Your task to perform on an android device: change the clock style Image 0: 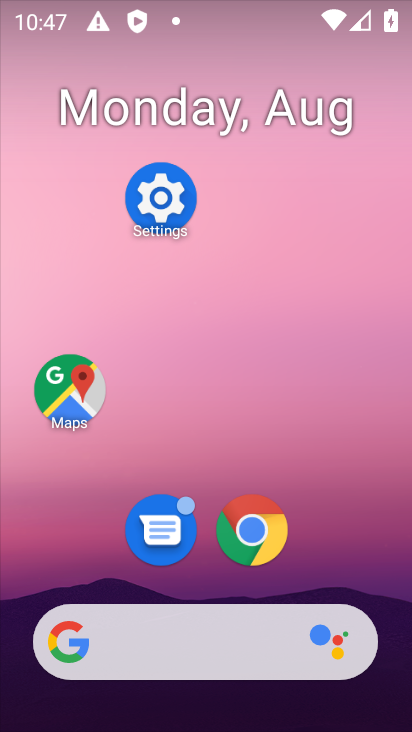
Step 0: drag from (213, 646) to (213, 444)
Your task to perform on an android device: change the clock style Image 1: 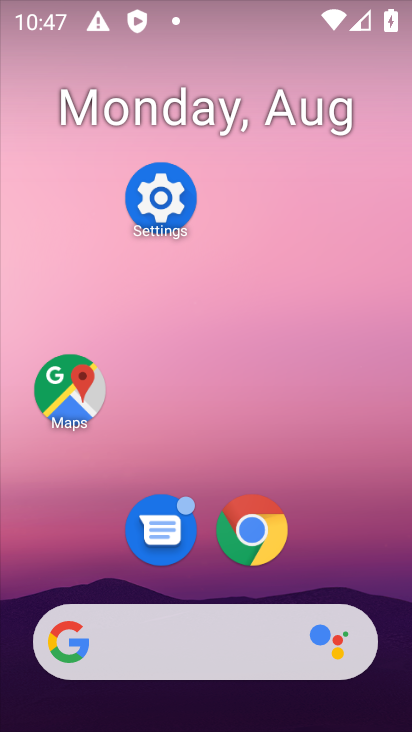
Step 1: click (163, 206)
Your task to perform on an android device: change the clock style Image 2: 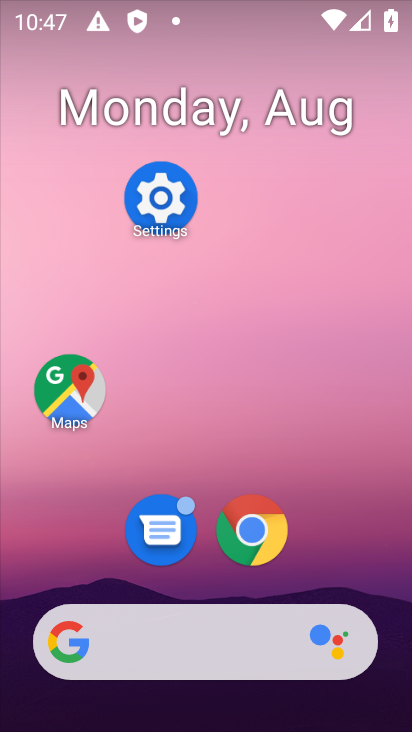
Step 2: click (160, 193)
Your task to perform on an android device: change the clock style Image 3: 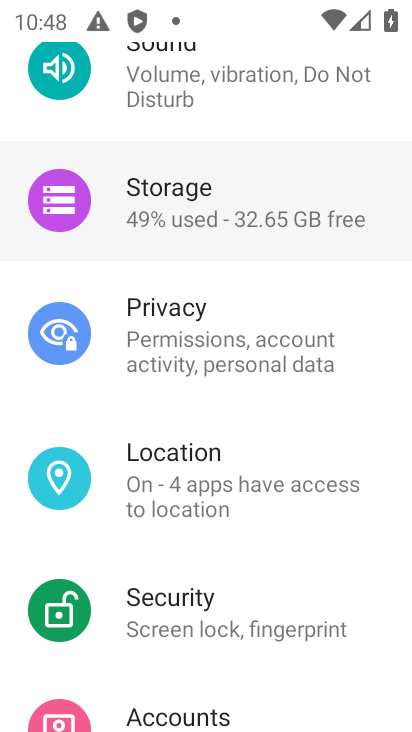
Step 3: drag from (259, 483) to (222, 47)
Your task to perform on an android device: change the clock style Image 4: 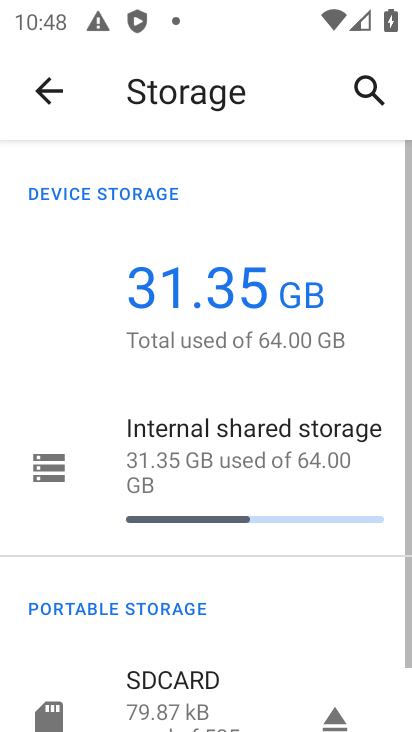
Step 4: click (30, 82)
Your task to perform on an android device: change the clock style Image 5: 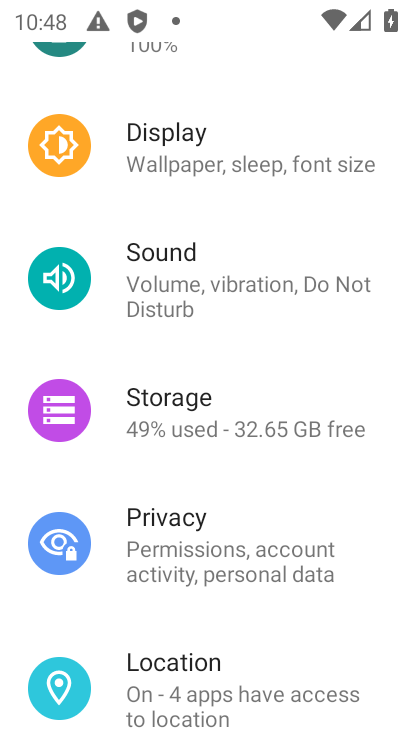
Step 5: press back button
Your task to perform on an android device: change the clock style Image 6: 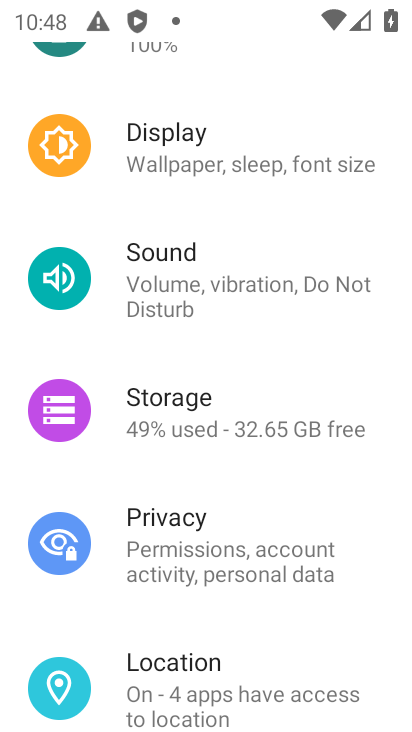
Step 6: press back button
Your task to perform on an android device: change the clock style Image 7: 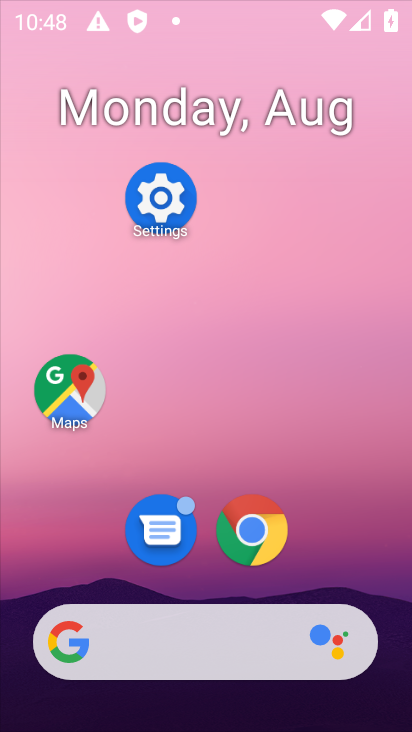
Step 7: press home button
Your task to perform on an android device: change the clock style Image 8: 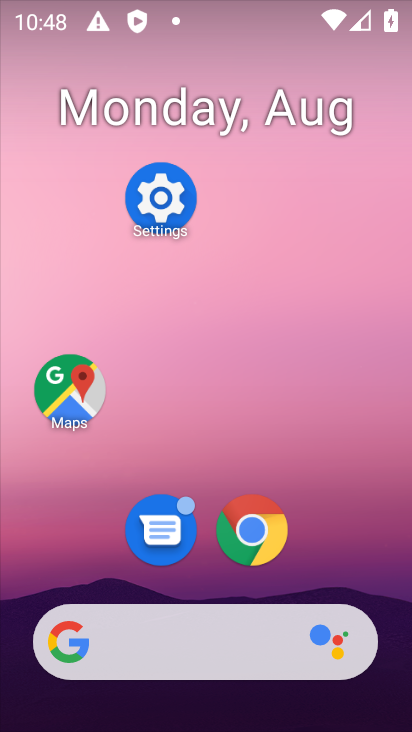
Step 8: drag from (256, 648) to (130, 157)
Your task to perform on an android device: change the clock style Image 9: 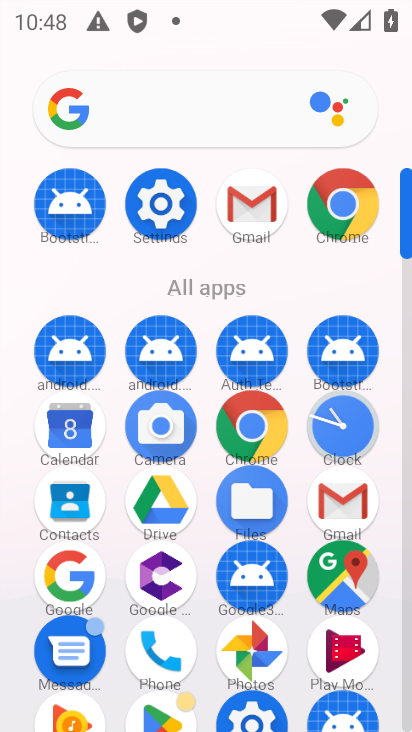
Step 9: drag from (133, 189) to (149, 94)
Your task to perform on an android device: change the clock style Image 10: 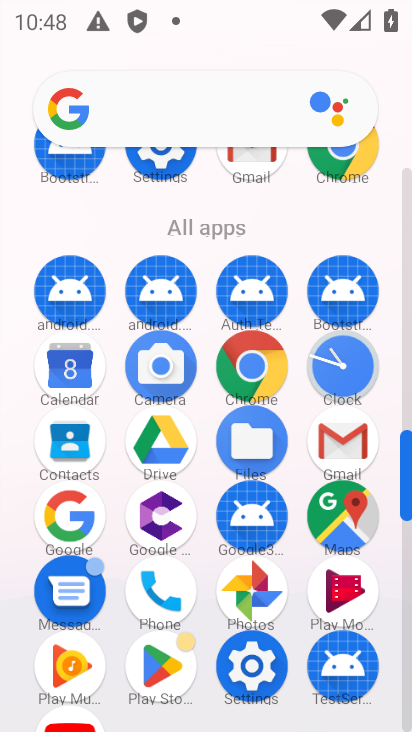
Step 10: click (322, 444)
Your task to perform on an android device: change the clock style Image 11: 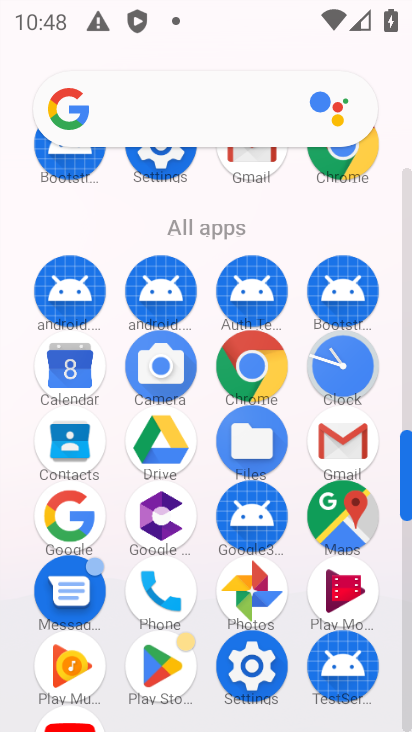
Step 11: click (332, 436)
Your task to perform on an android device: change the clock style Image 12: 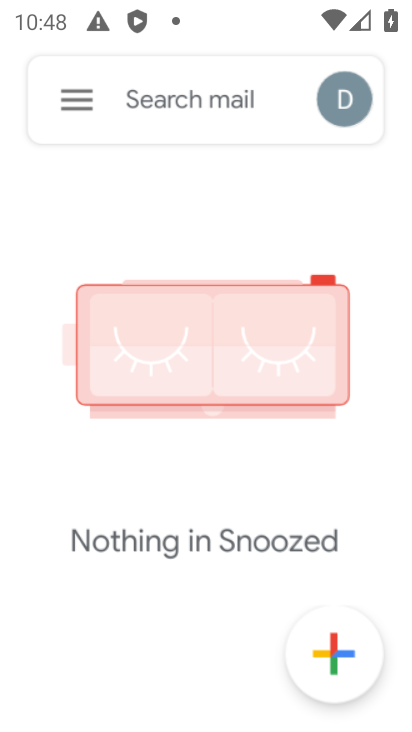
Step 12: click (351, 355)
Your task to perform on an android device: change the clock style Image 13: 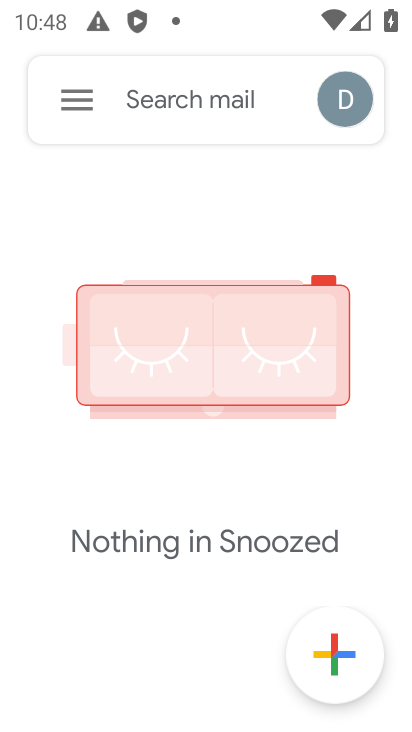
Step 13: click (350, 354)
Your task to perform on an android device: change the clock style Image 14: 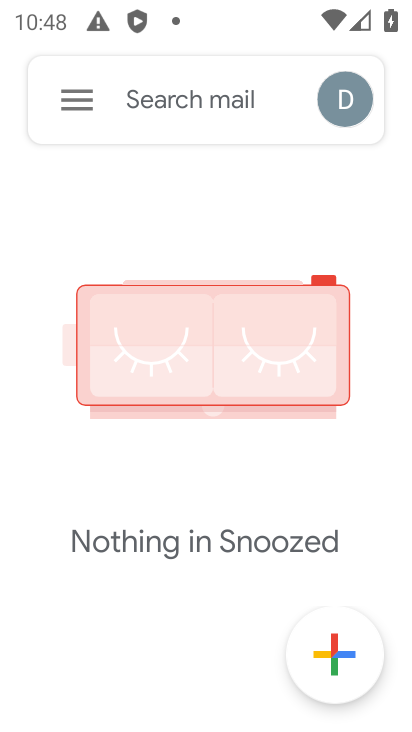
Step 14: press back button
Your task to perform on an android device: change the clock style Image 15: 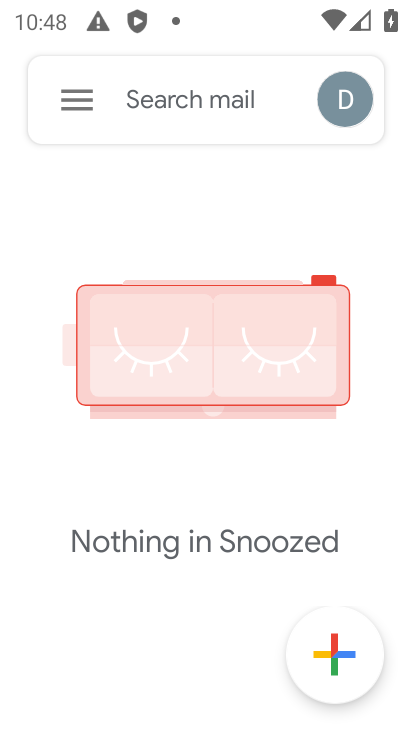
Step 15: press back button
Your task to perform on an android device: change the clock style Image 16: 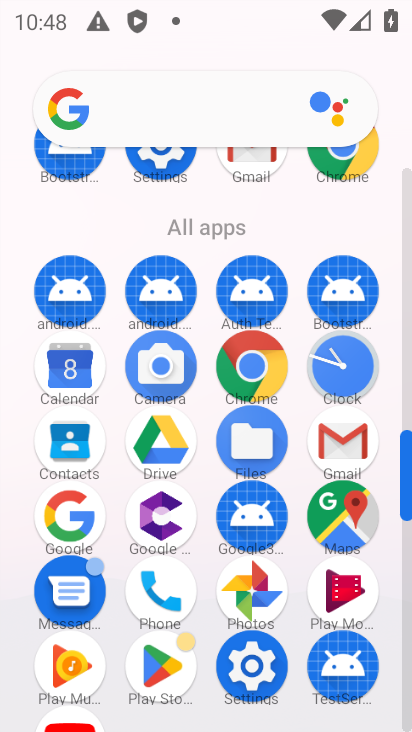
Step 16: click (356, 374)
Your task to perform on an android device: change the clock style Image 17: 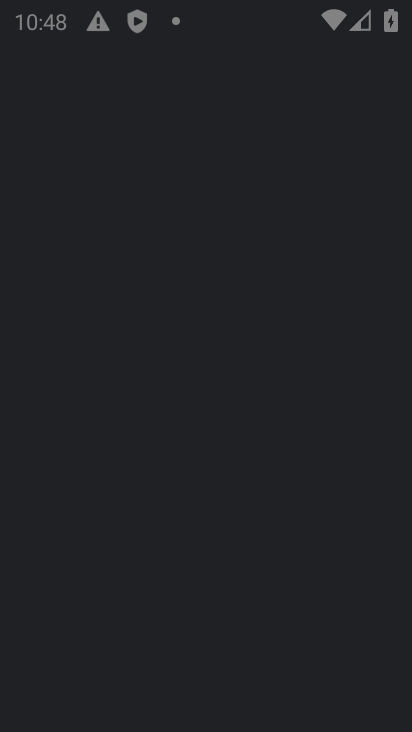
Step 17: click (342, 366)
Your task to perform on an android device: change the clock style Image 18: 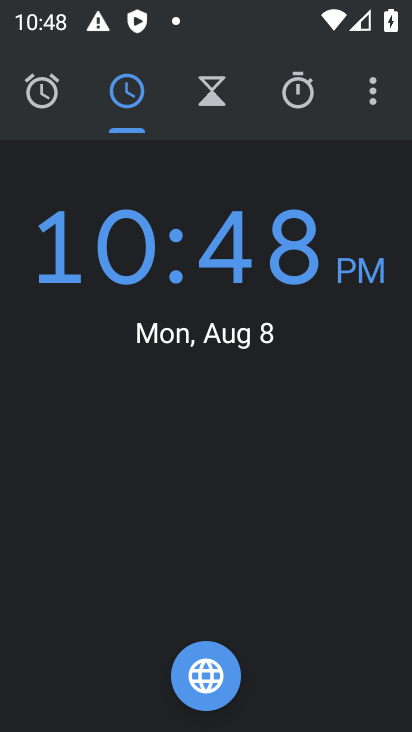
Step 18: click (366, 93)
Your task to perform on an android device: change the clock style Image 19: 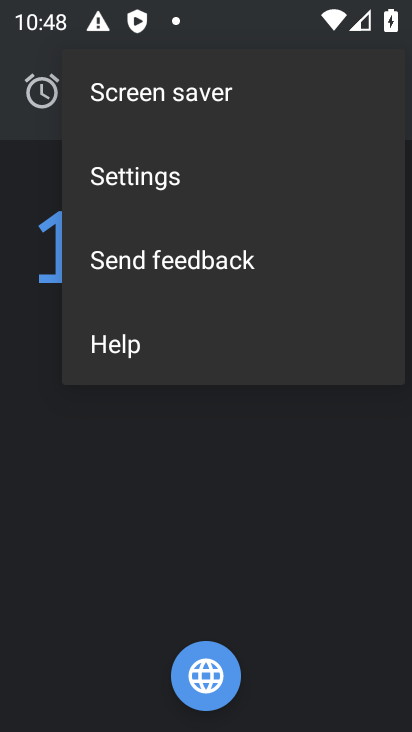
Step 19: click (156, 176)
Your task to perform on an android device: change the clock style Image 20: 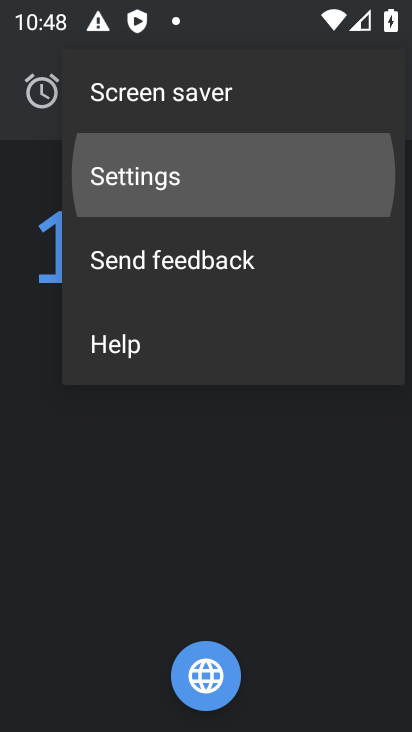
Step 20: click (157, 180)
Your task to perform on an android device: change the clock style Image 21: 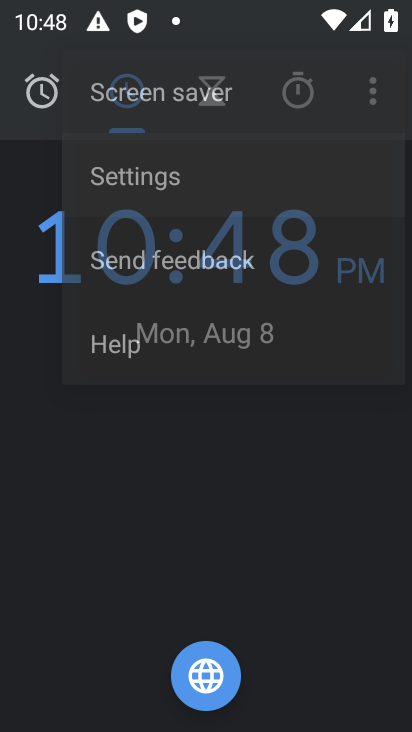
Step 21: click (157, 180)
Your task to perform on an android device: change the clock style Image 22: 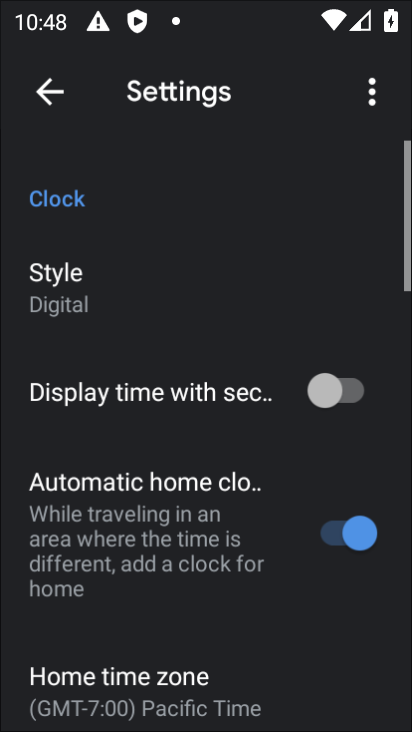
Step 22: click (161, 178)
Your task to perform on an android device: change the clock style Image 23: 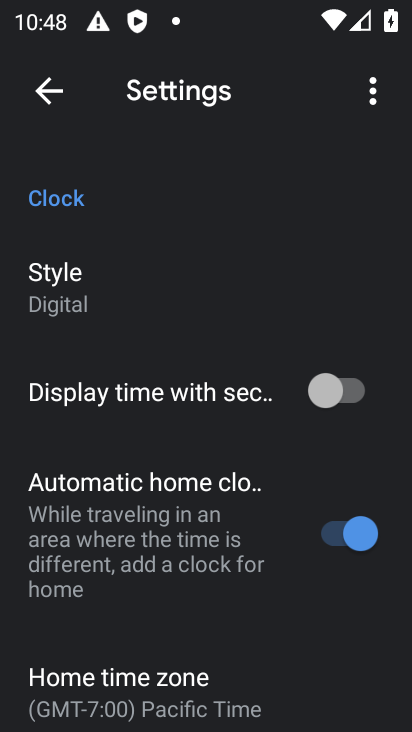
Step 23: click (75, 295)
Your task to perform on an android device: change the clock style Image 24: 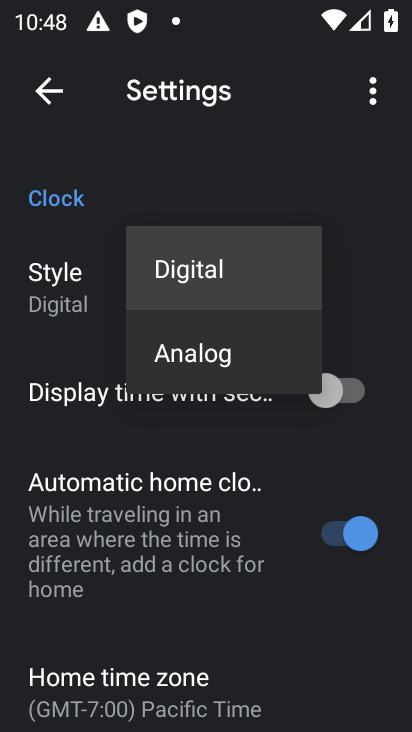
Step 24: click (204, 362)
Your task to perform on an android device: change the clock style Image 25: 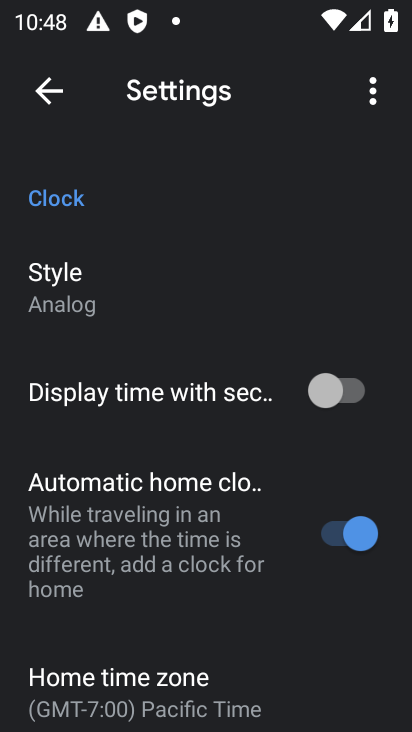
Step 25: task complete